Your task to perform on an android device: Open the stopwatch Image 0: 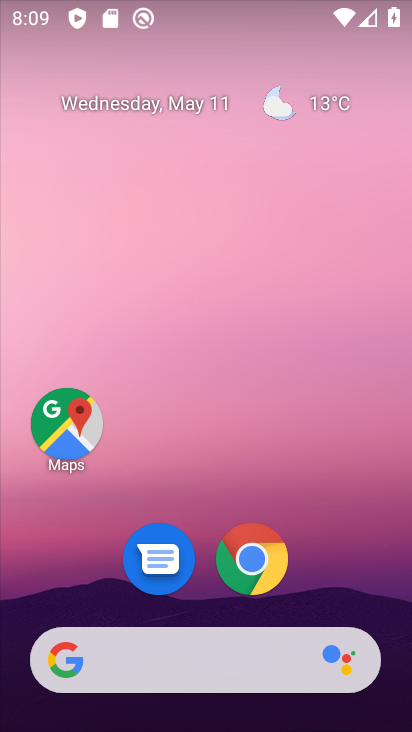
Step 0: drag from (323, 592) to (402, 78)
Your task to perform on an android device: Open the stopwatch Image 1: 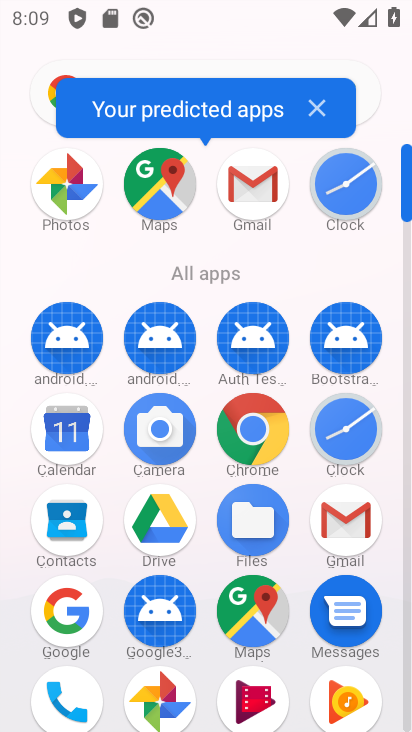
Step 1: click (350, 190)
Your task to perform on an android device: Open the stopwatch Image 2: 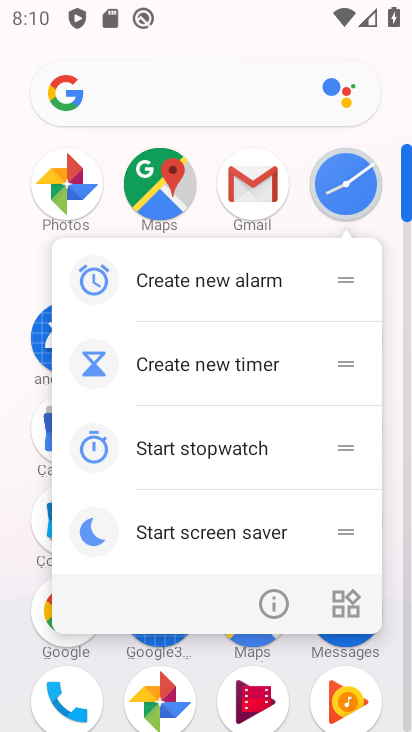
Step 2: click (344, 194)
Your task to perform on an android device: Open the stopwatch Image 3: 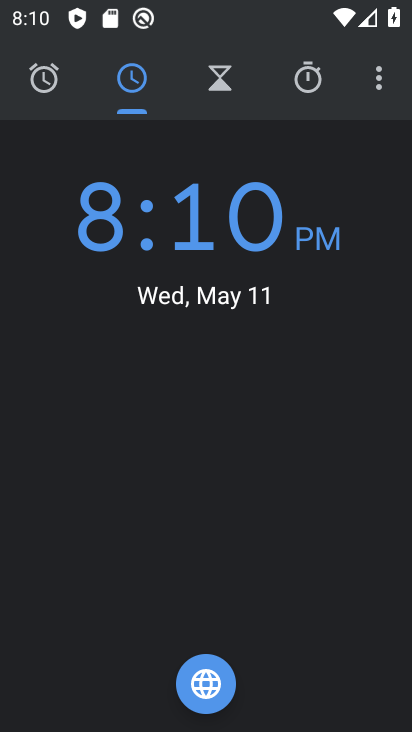
Step 3: click (309, 86)
Your task to perform on an android device: Open the stopwatch Image 4: 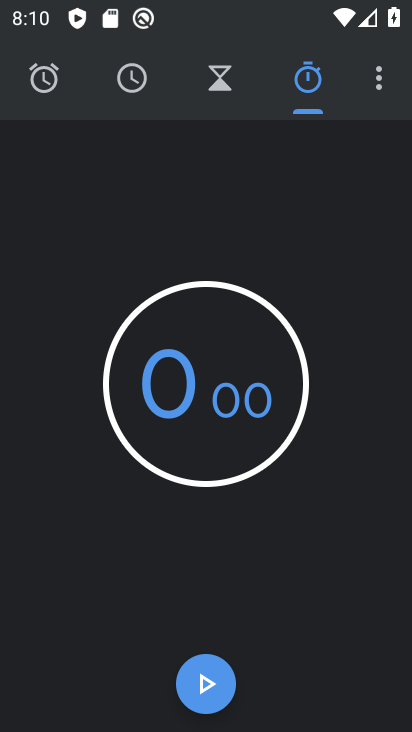
Step 4: click (210, 668)
Your task to perform on an android device: Open the stopwatch Image 5: 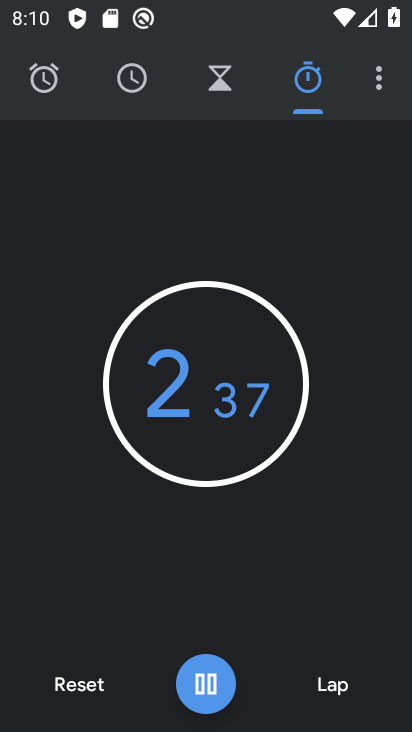
Step 5: task complete